Your task to perform on an android device: add a contact Image 0: 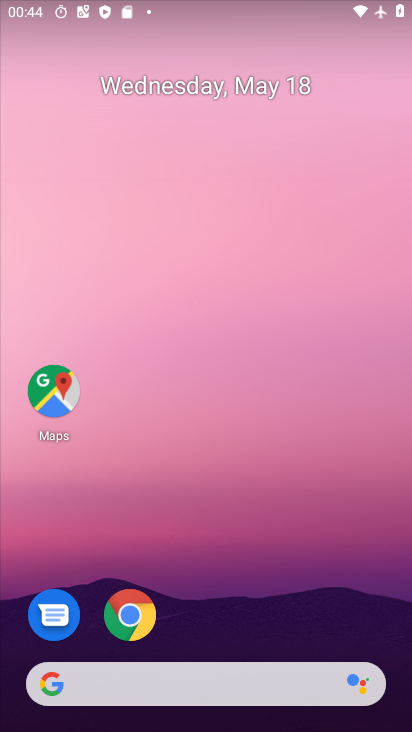
Step 0: drag from (217, 648) to (223, 286)
Your task to perform on an android device: add a contact Image 1: 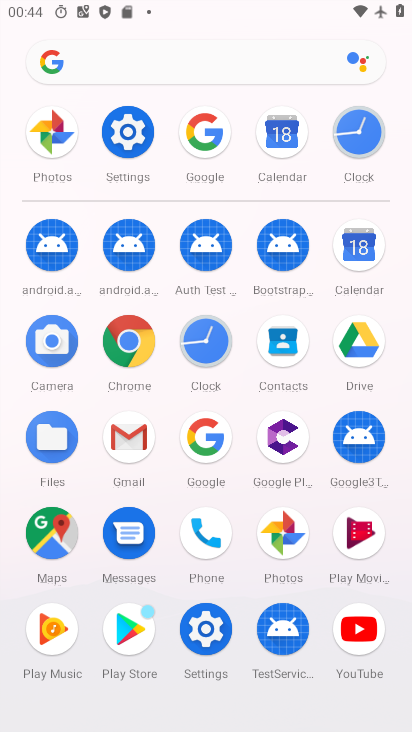
Step 1: click (283, 352)
Your task to perform on an android device: add a contact Image 2: 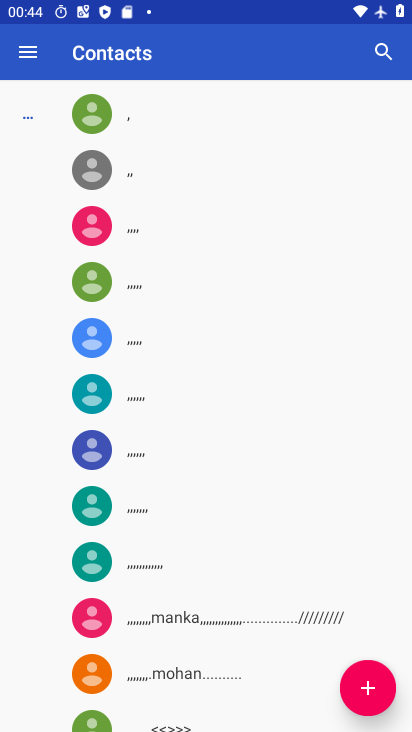
Step 2: click (366, 696)
Your task to perform on an android device: add a contact Image 3: 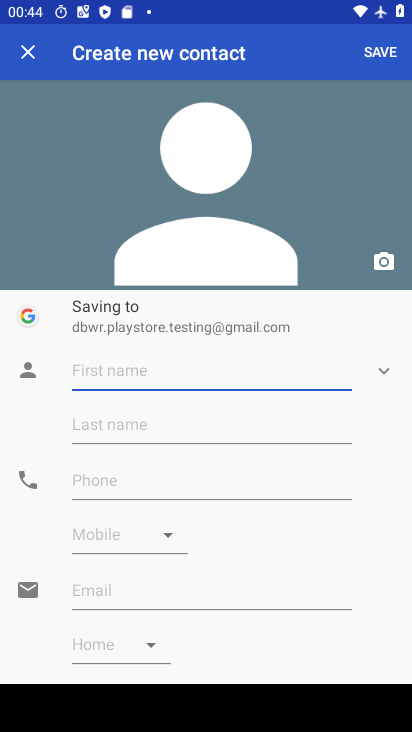
Step 3: type "hdfthgj"
Your task to perform on an android device: add a contact Image 4: 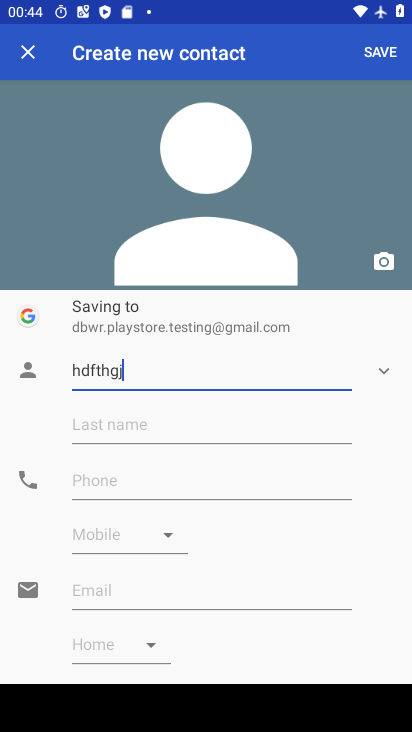
Step 4: click (101, 479)
Your task to perform on an android device: add a contact Image 5: 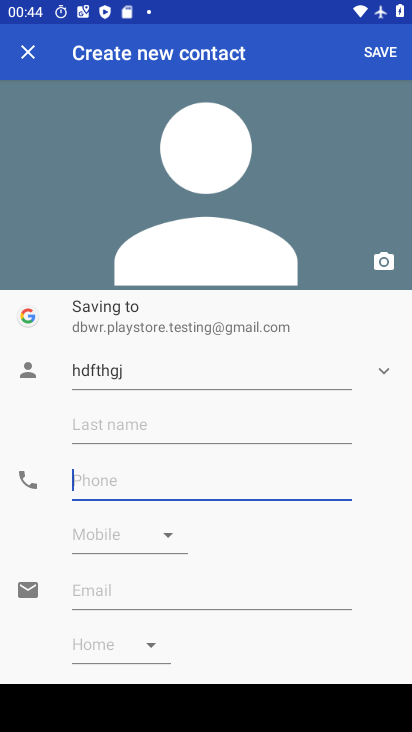
Step 5: type "864585468"
Your task to perform on an android device: add a contact Image 6: 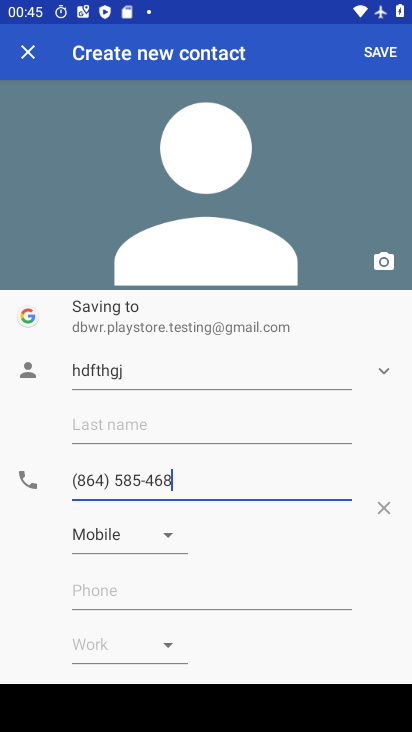
Step 6: click (367, 55)
Your task to perform on an android device: add a contact Image 7: 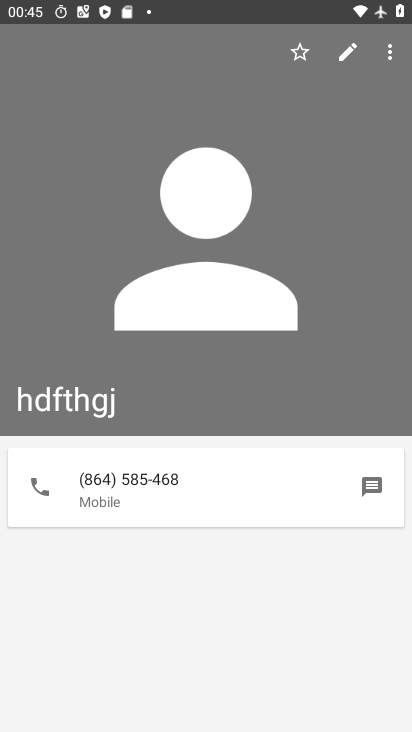
Step 7: task complete